Your task to perform on an android device: allow notifications from all sites in the chrome app Image 0: 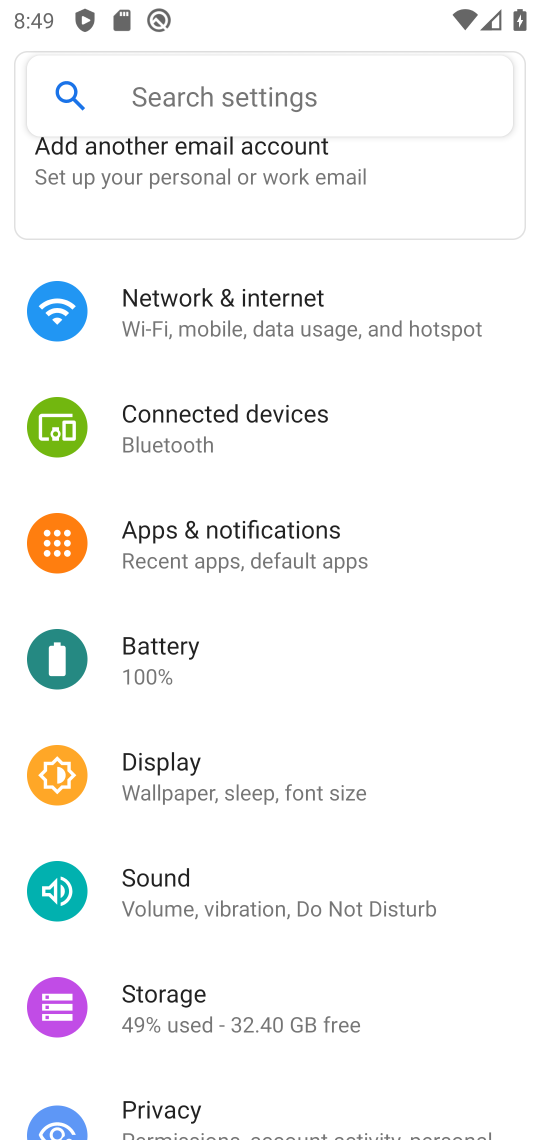
Step 0: press home button
Your task to perform on an android device: allow notifications from all sites in the chrome app Image 1: 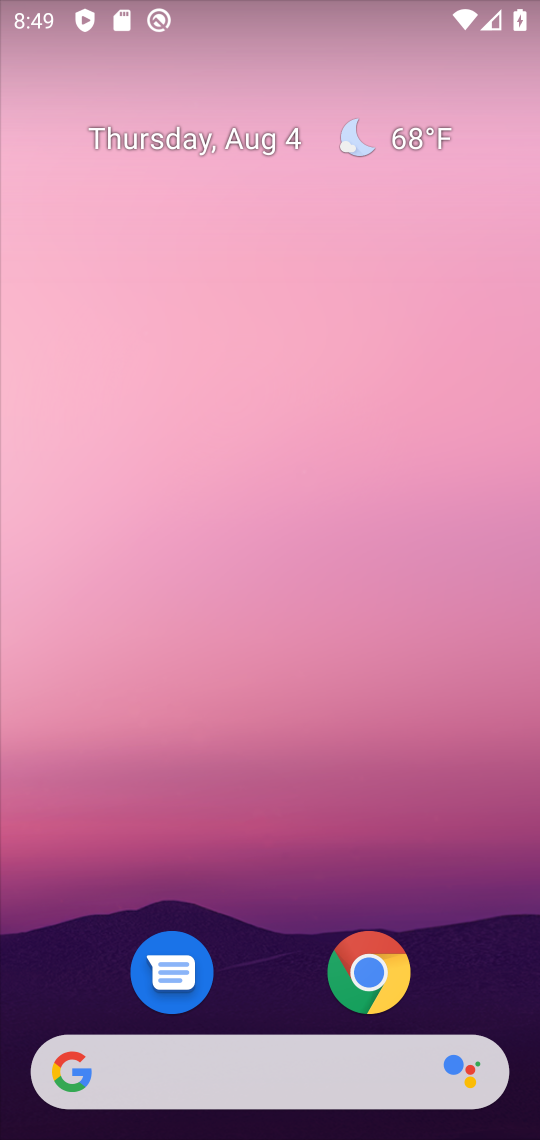
Step 1: click (370, 960)
Your task to perform on an android device: allow notifications from all sites in the chrome app Image 2: 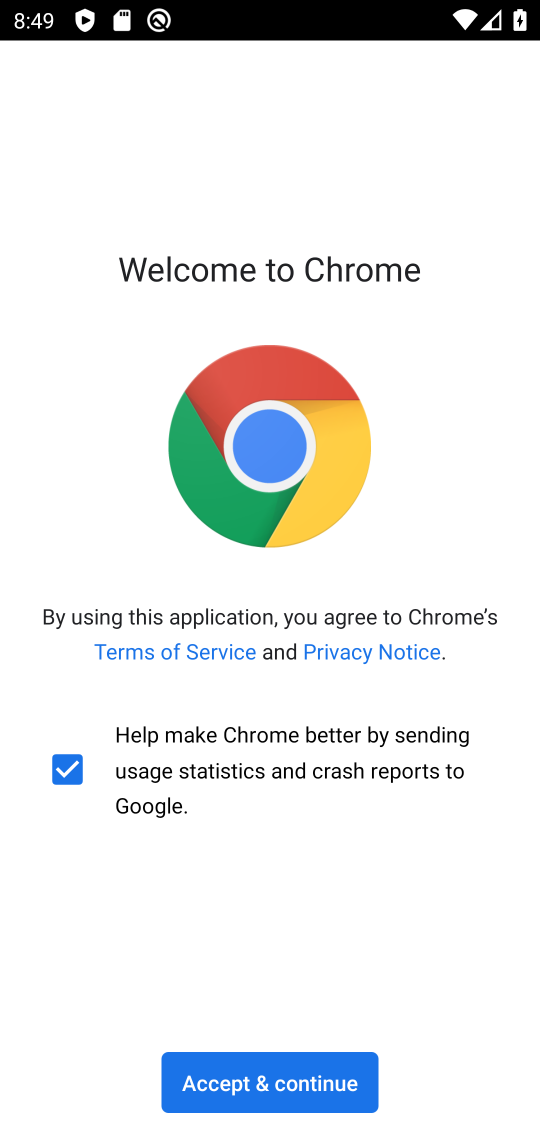
Step 2: click (332, 1071)
Your task to perform on an android device: allow notifications from all sites in the chrome app Image 3: 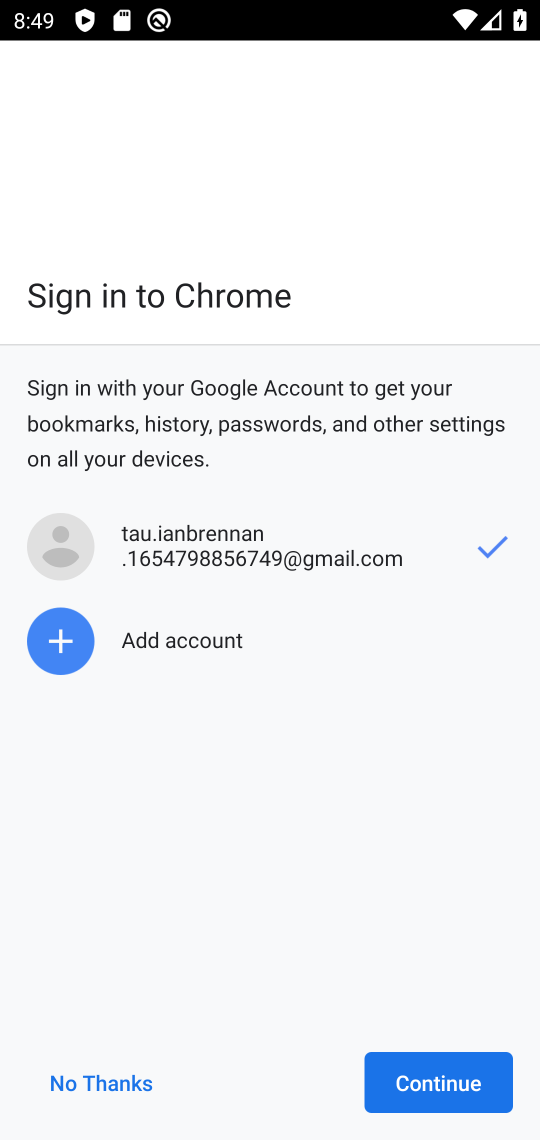
Step 3: click (445, 1083)
Your task to perform on an android device: allow notifications from all sites in the chrome app Image 4: 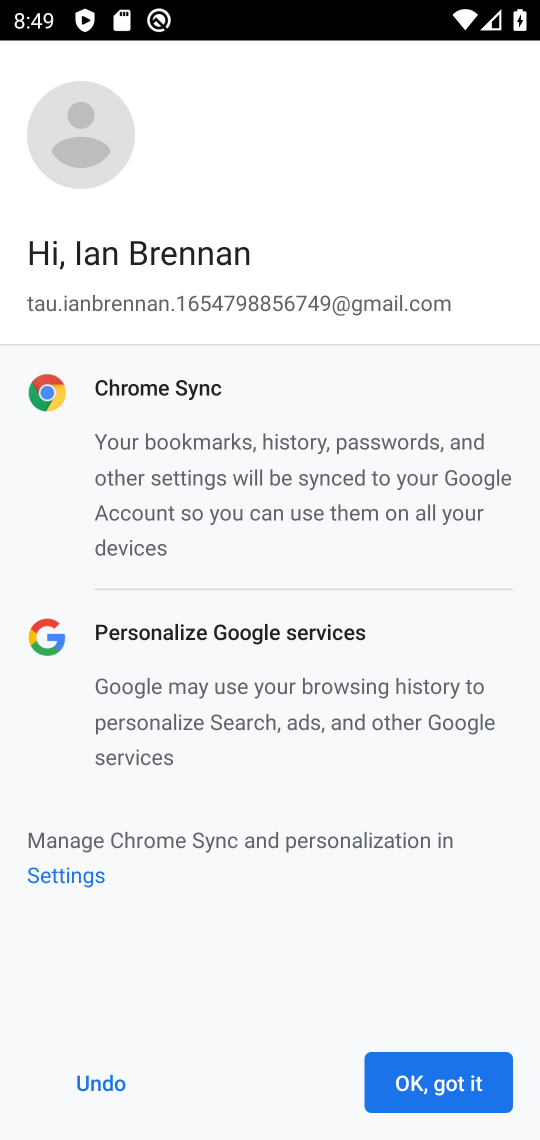
Step 4: click (449, 1082)
Your task to perform on an android device: allow notifications from all sites in the chrome app Image 5: 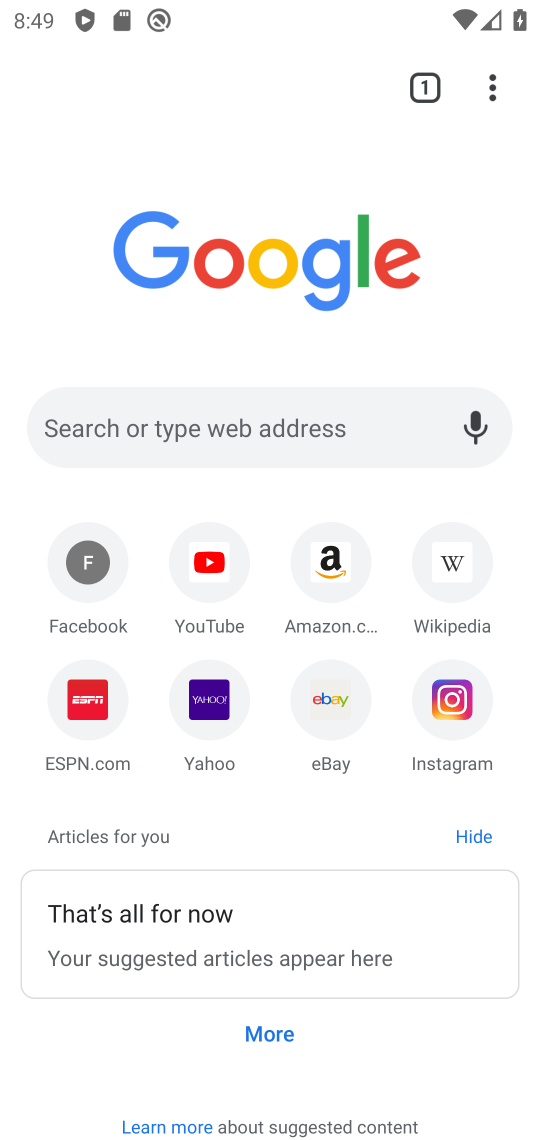
Step 5: click (497, 97)
Your task to perform on an android device: allow notifications from all sites in the chrome app Image 6: 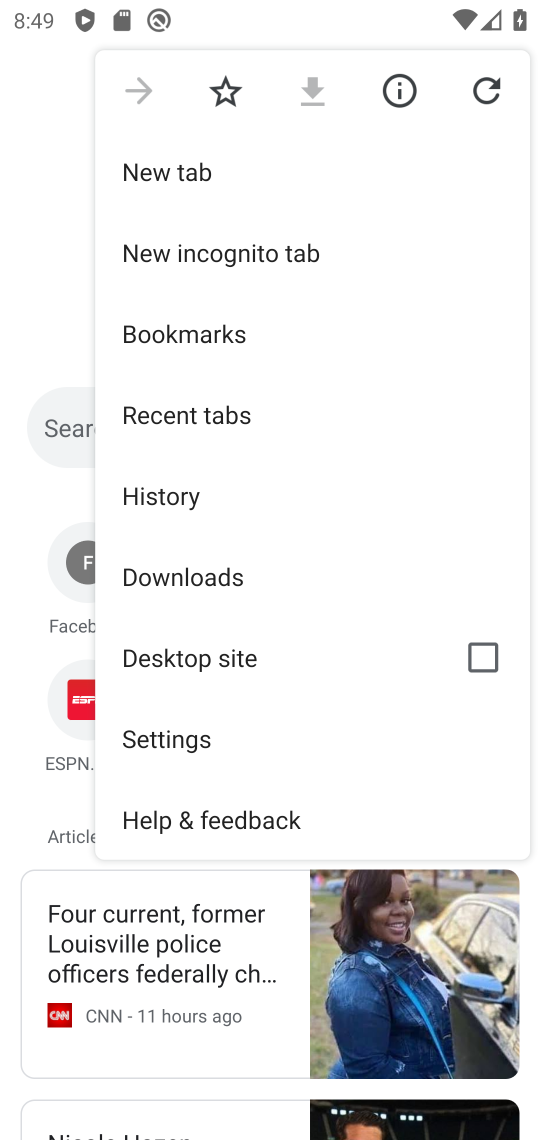
Step 6: click (201, 727)
Your task to perform on an android device: allow notifications from all sites in the chrome app Image 7: 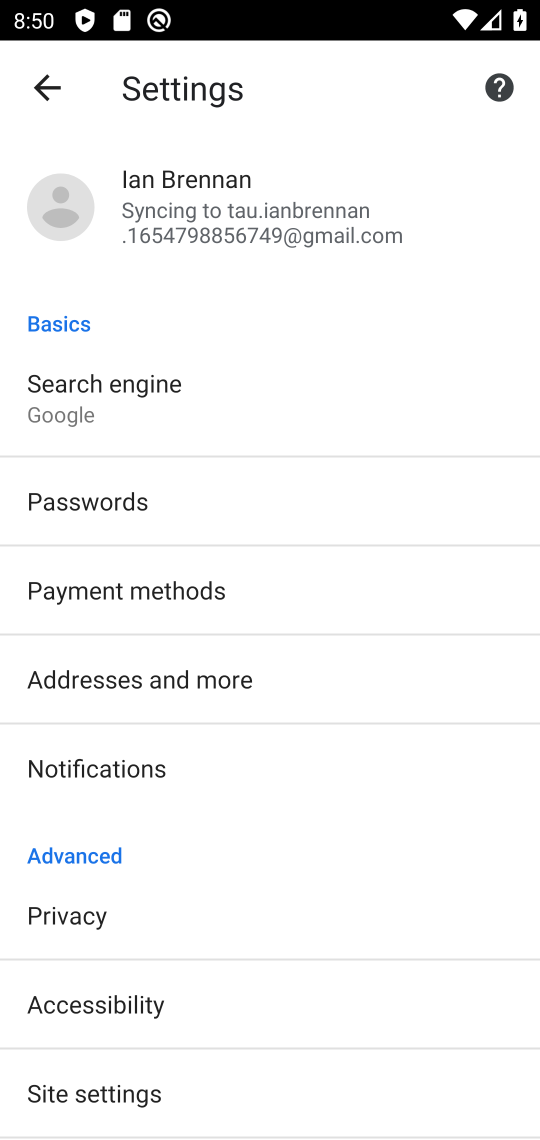
Step 7: click (229, 763)
Your task to perform on an android device: allow notifications from all sites in the chrome app Image 8: 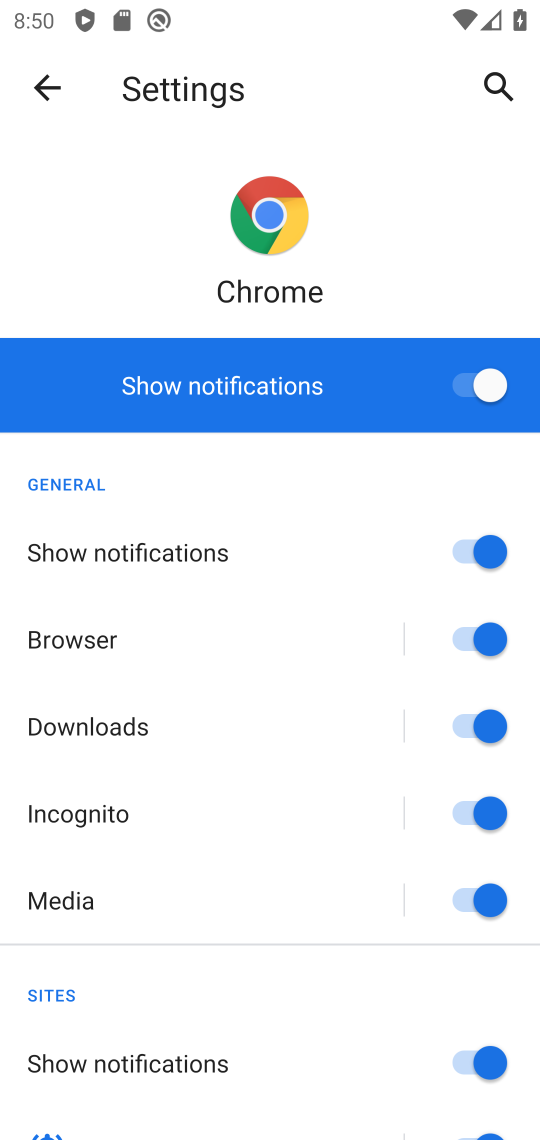
Step 8: task complete